Your task to perform on an android device: clear history in the chrome app Image 0: 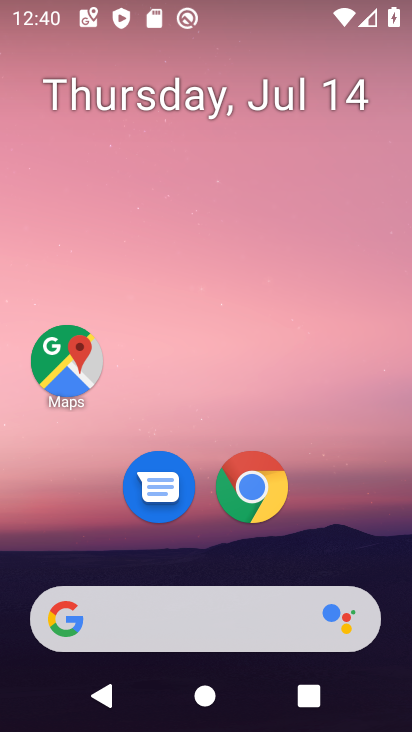
Step 0: drag from (254, 537) to (273, 223)
Your task to perform on an android device: clear history in the chrome app Image 1: 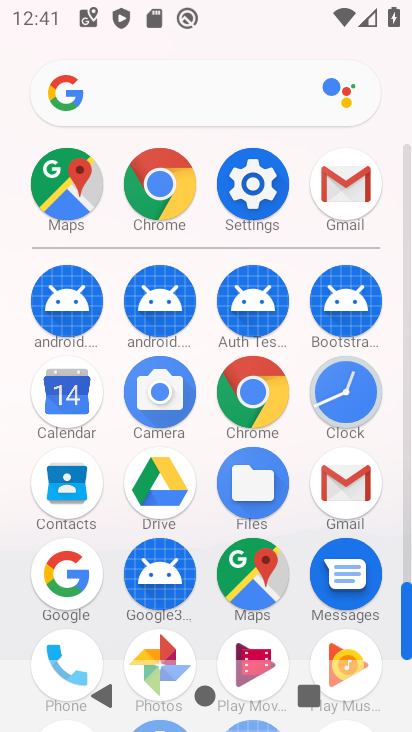
Step 1: click (266, 398)
Your task to perform on an android device: clear history in the chrome app Image 2: 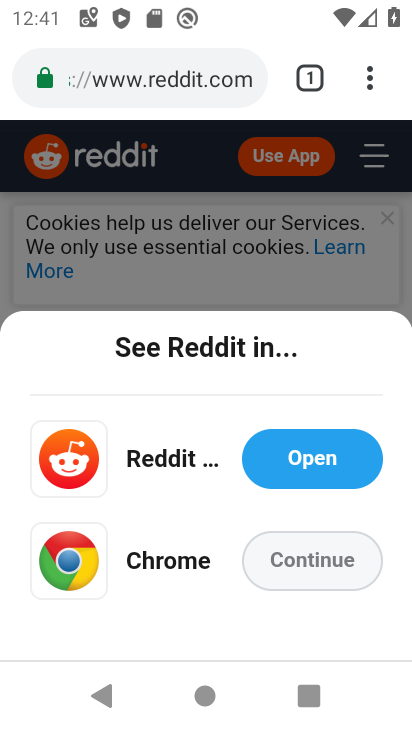
Step 2: click (375, 89)
Your task to perform on an android device: clear history in the chrome app Image 3: 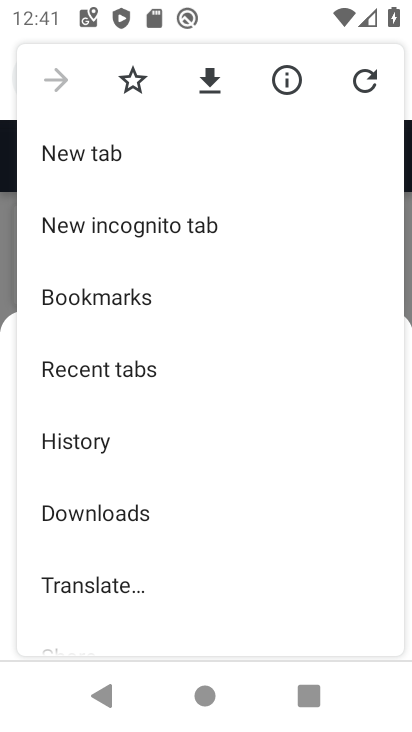
Step 3: click (113, 451)
Your task to perform on an android device: clear history in the chrome app Image 4: 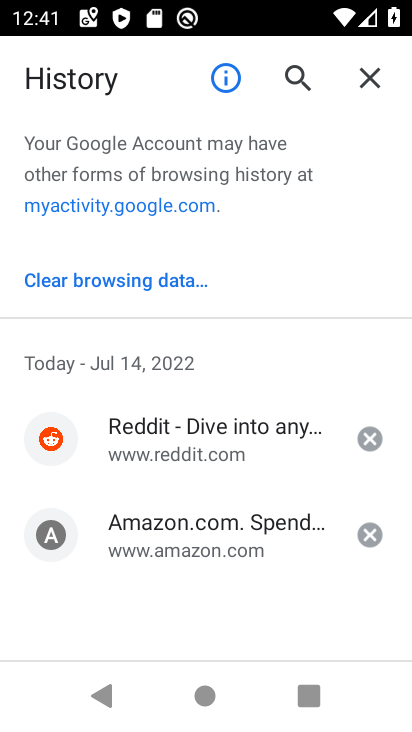
Step 4: click (88, 283)
Your task to perform on an android device: clear history in the chrome app Image 5: 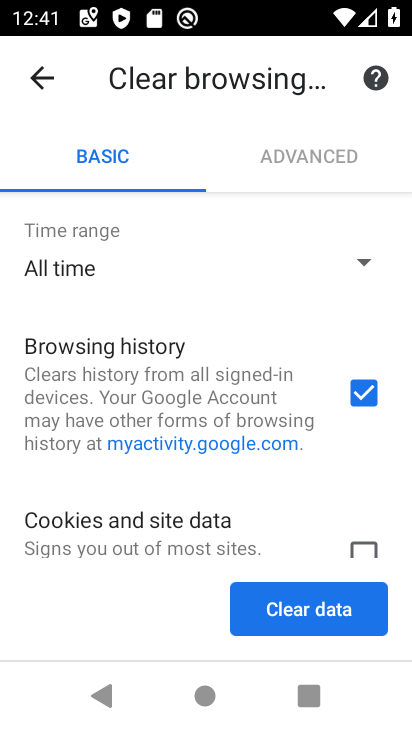
Step 5: click (331, 619)
Your task to perform on an android device: clear history in the chrome app Image 6: 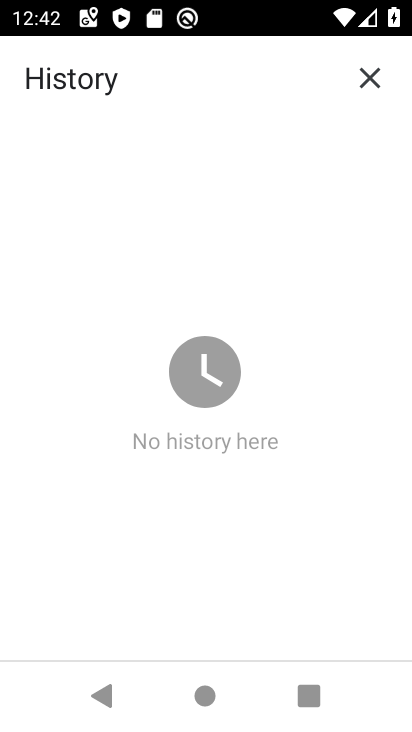
Step 6: task complete